Your task to perform on an android device: turn on the 24-hour format for clock Image 0: 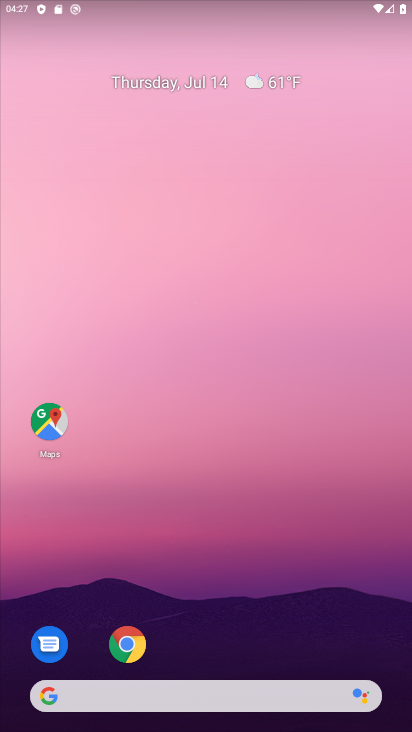
Step 0: press home button
Your task to perform on an android device: turn on the 24-hour format for clock Image 1: 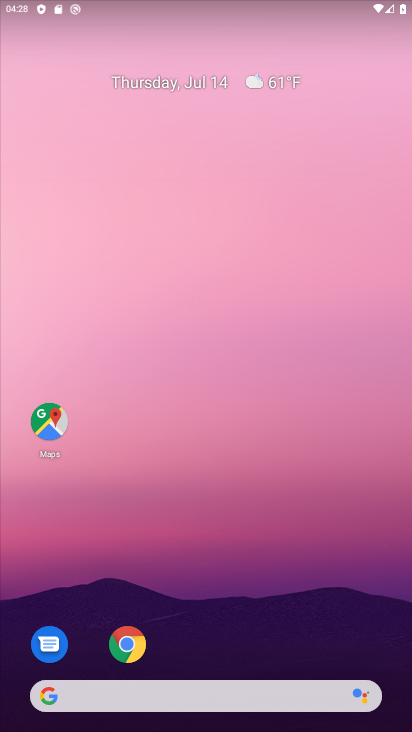
Step 1: drag from (214, 568) to (226, 118)
Your task to perform on an android device: turn on the 24-hour format for clock Image 2: 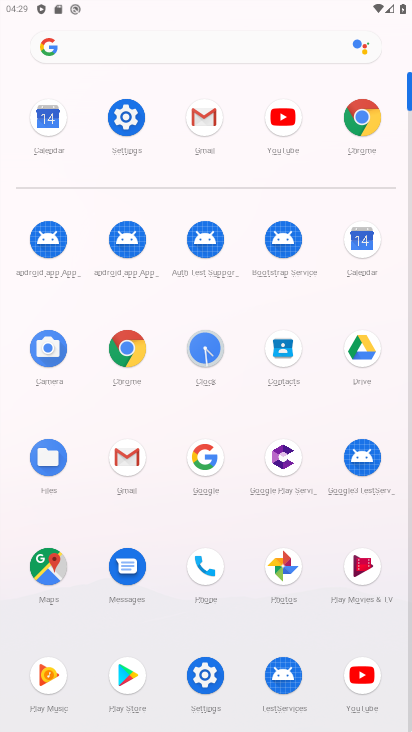
Step 2: click (214, 378)
Your task to perform on an android device: turn on the 24-hour format for clock Image 3: 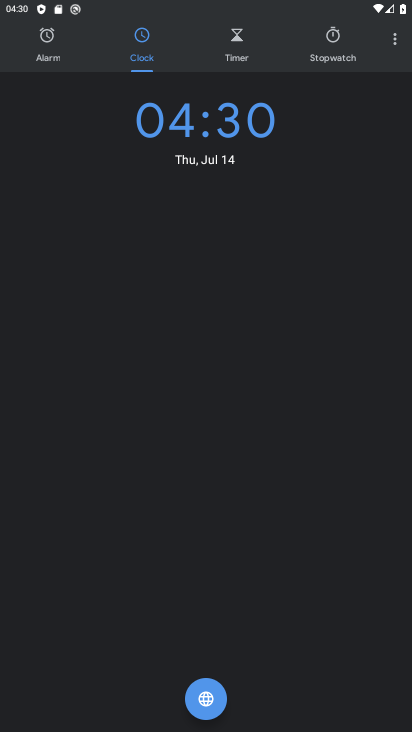
Step 3: click (394, 29)
Your task to perform on an android device: turn on the 24-hour format for clock Image 4: 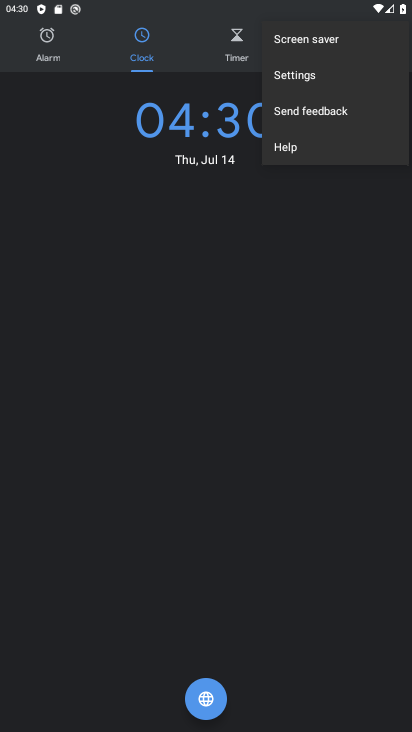
Step 4: click (305, 71)
Your task to perform on an android device: turn on the 24-hour format for clock Image 5: 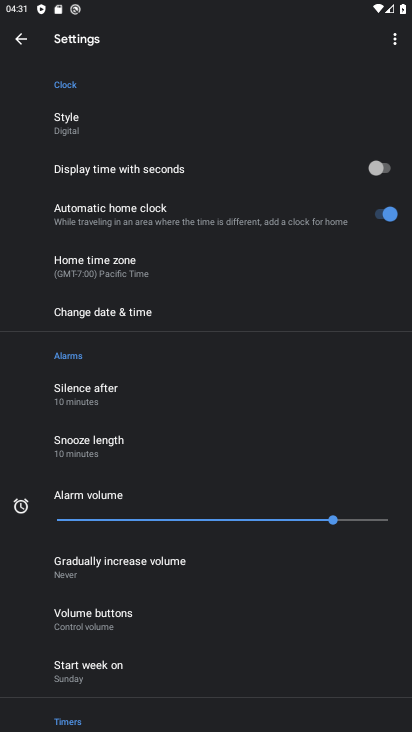
Step 5: click (167, 312)
Your task to perform on an android device: turn on the 24-hour format for clock Image 6: 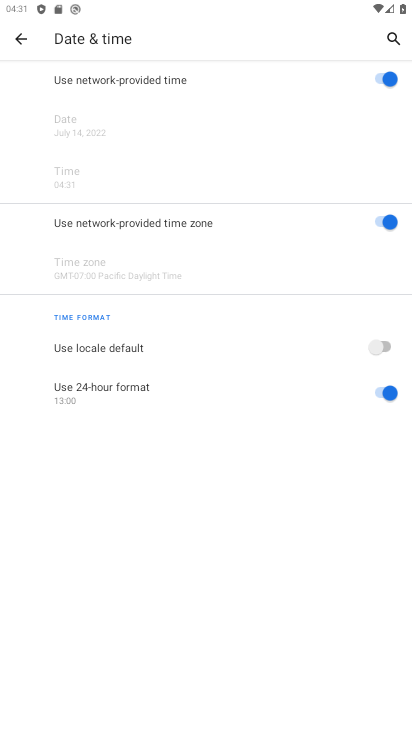
Step 6: task complete